Your task to perform on an android device: change keyboard looks Image 0: 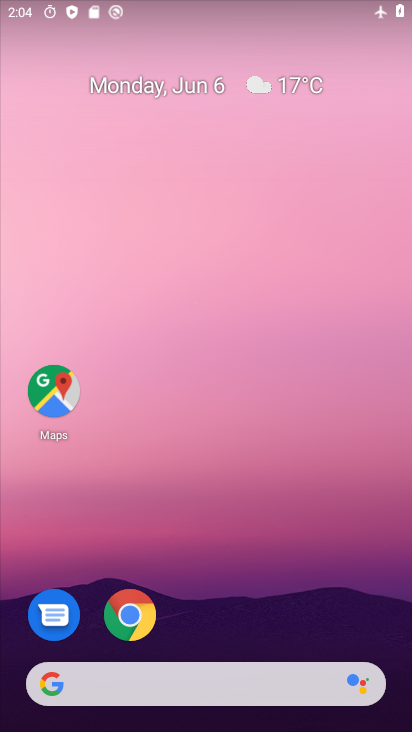
Step 0: drag from (196, 606) to (327, 101)
Your task to perform on an android device: change keyboard looks Image 1: 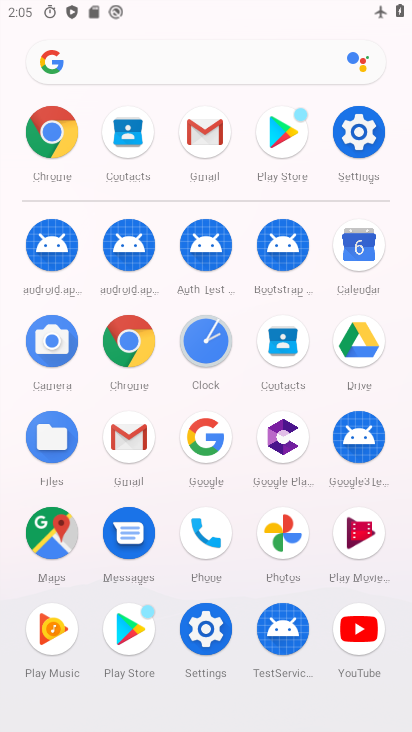
Step 1: click (213, 648)
Your task to perform on an android device: change keyboard looks Image 2: 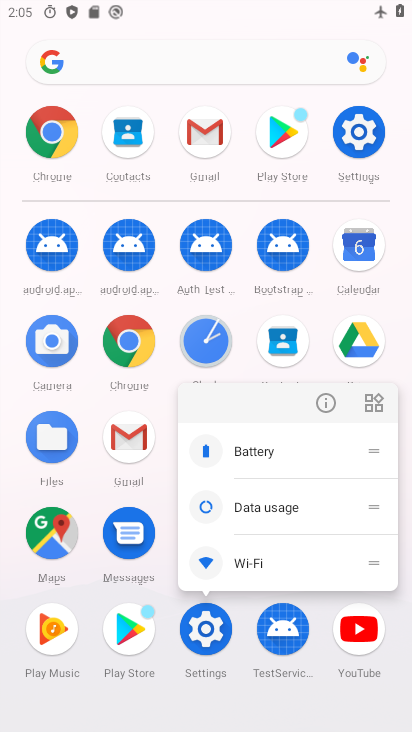
Step 2: click (330, 391)
Your task to perform on an android device: change keyboard looks Image 3: 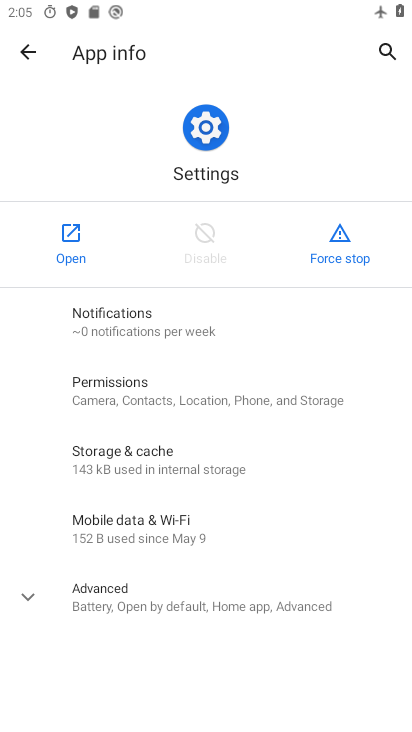
Step 3: click (70, 213)
Your task to perform on an android device: change keyboard looks Image 4: 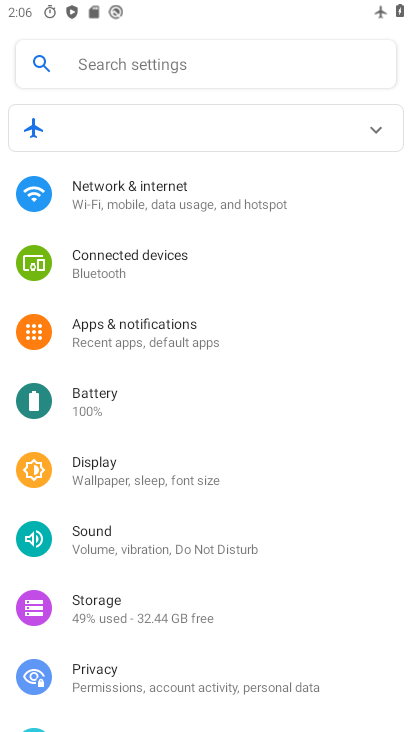
Step 4: click (37, 287)
Your task to perform on an android device: change keyboard looks Image 5: 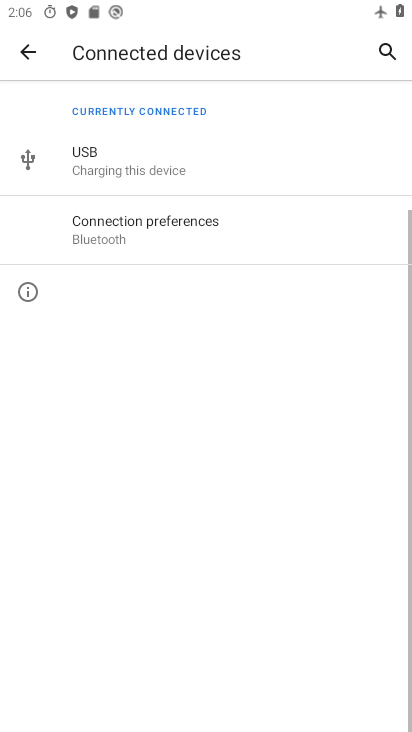
Step 5: drag from (156, 582) to (283, 33)
Your task to perform on an android device: change keyboard looks Image 6: 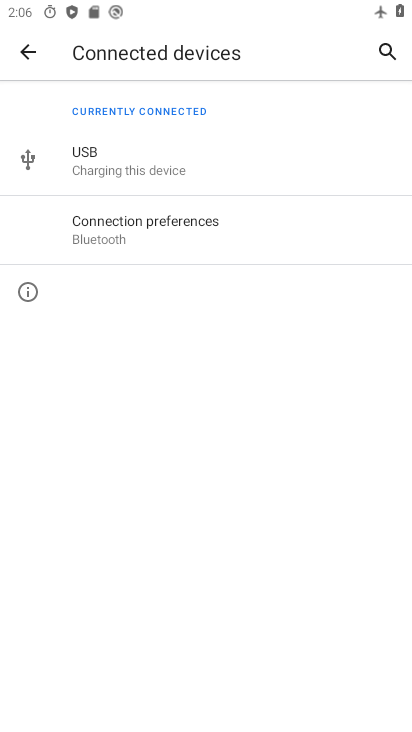
Step 6: click (28, 59)
Your task to perform on an android device: change keyboard looks Image 7: 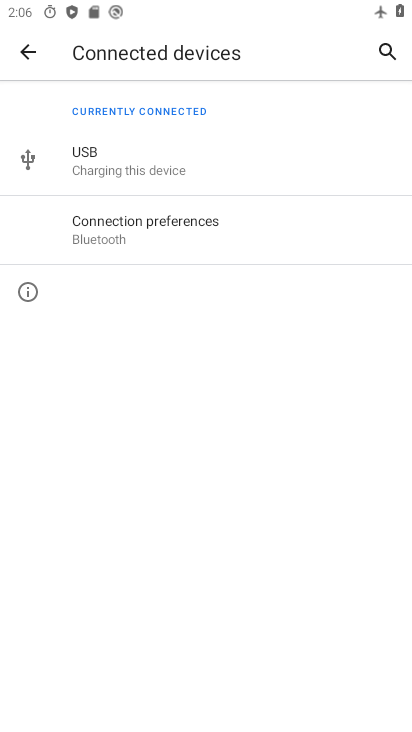
Step 7: drag from (131, 440) to (250, 16)
Your task to perform on an android device: change keyboard looks Image 8: 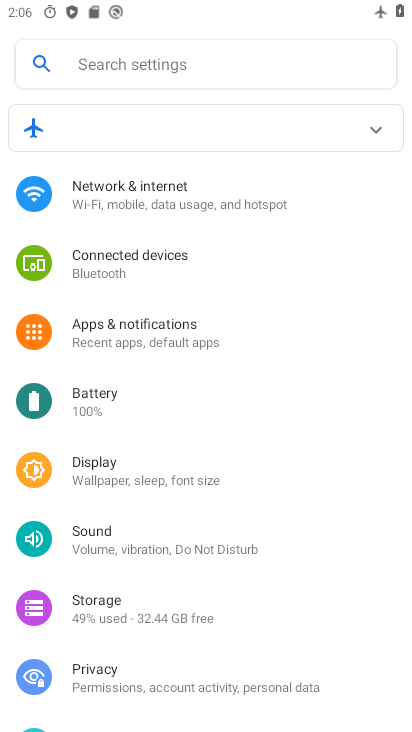
Step 8: drag from (144, 591) to (272, 5)
Your task to perform on an android device: change keyboard looks Image 9: 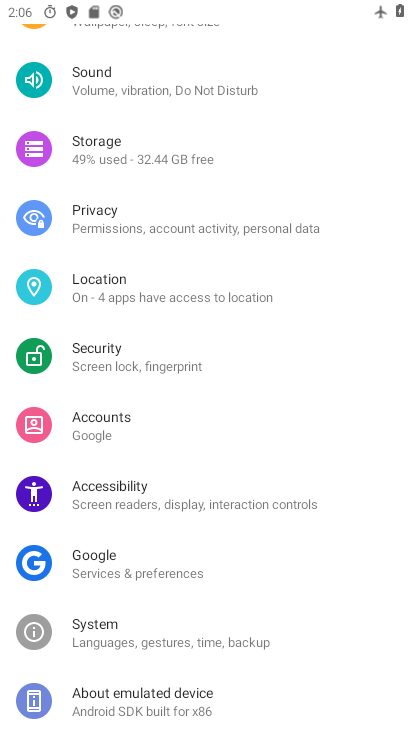
Step 9: click (118, 643)
Your task to perform on an android device: change keyboard looks Image 10: 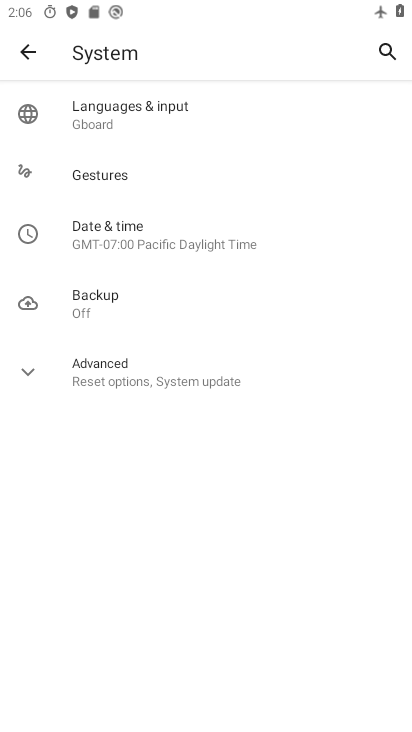
Step 10: click (184, 130)
Your task to perform on an android device: change keyboard looks Image 11: 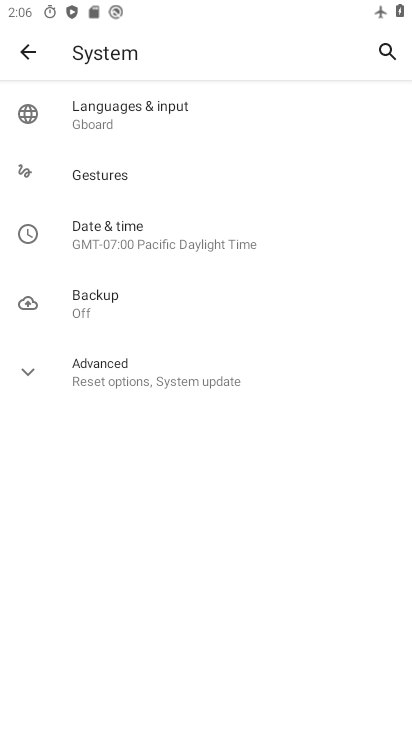
Step 11: click (184, 130)
Your task to perform on an android device: change keyboard looks Image 12: 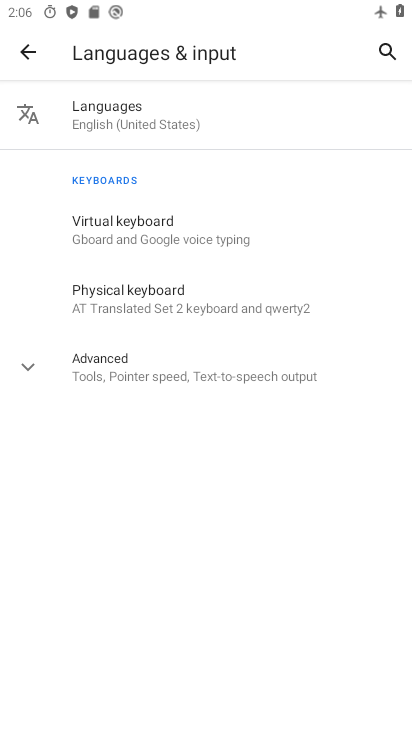
Step 12: drag from (174, 130) to (185, 417)
Your task to perform on an android device: change keyboard looks Image 13: 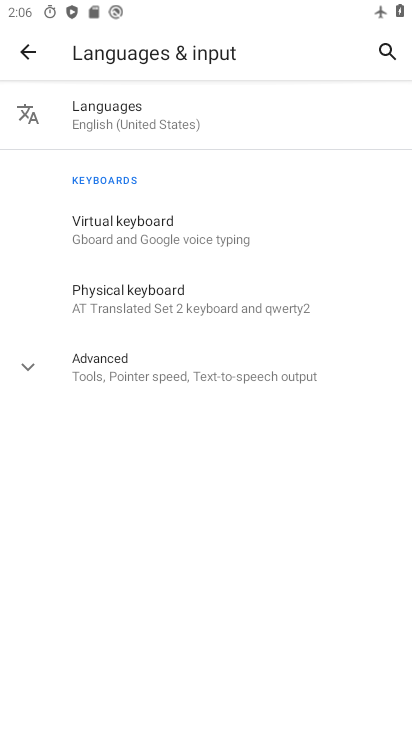
Step 13: click (197, 222)
Your task to perform on an android device: change keyboard looks Image 14: 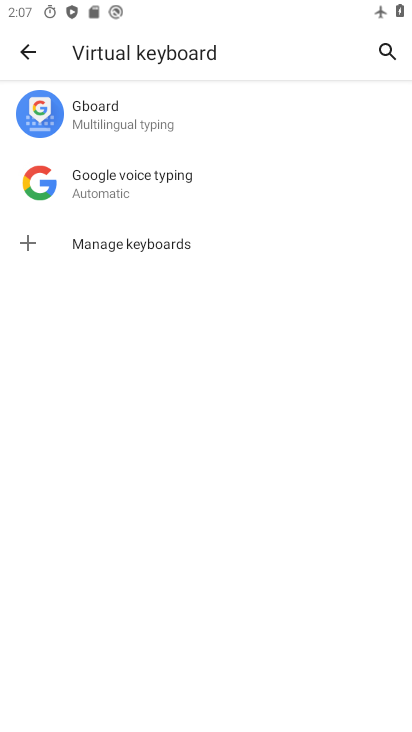
Step 14: click (160, 71)
Your task to perform on an android device: change keyboard looks Image 15: 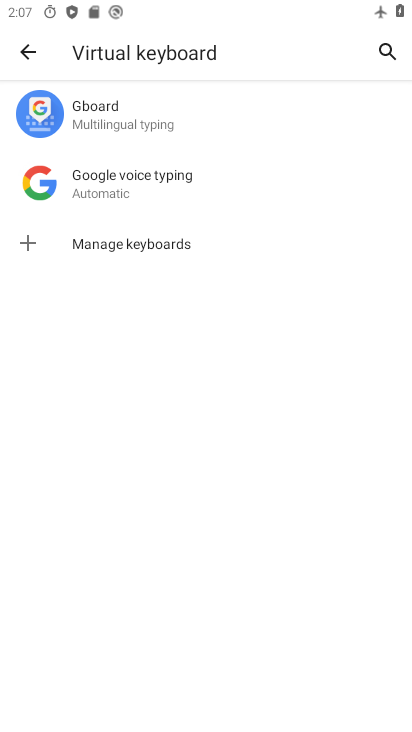
Step 15: click (131, 128)
Your task to perform on an android device: change keyboard looks Image 16: 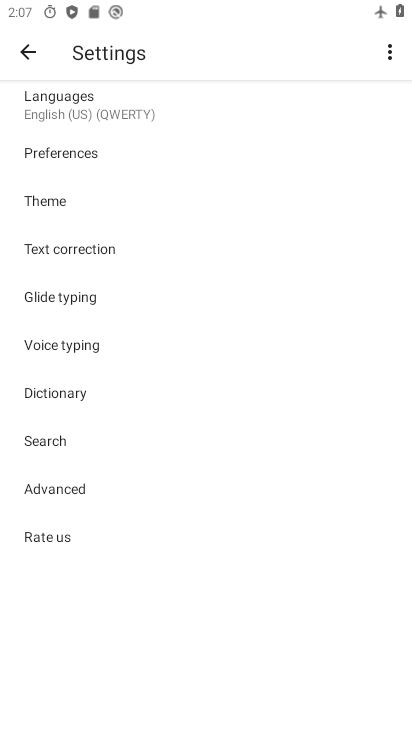
Step 16: click (79, 177)
Your task to perform on an android device: change keyboard looks Image 17: 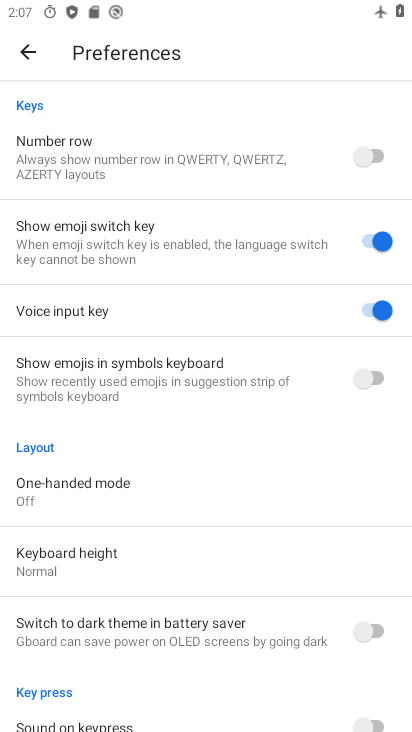
Step 17: click (31, 57)
Your task to perform on an android device: change keyboard looks Image 18: 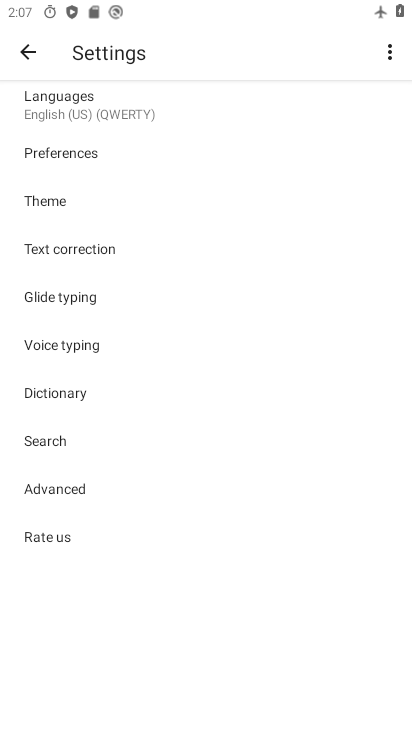
Step 18: click (103, 200)
Your task to perform on an android device: change keyboard looks Image 19: 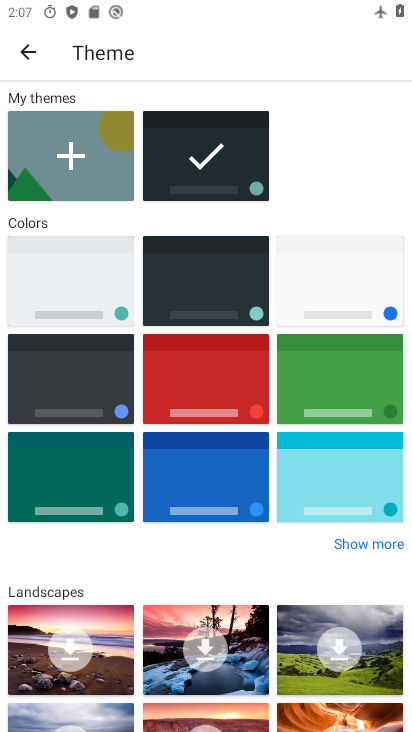
Step 19: click (217, 371)
Your task to perform on an android device: change keyboard looks Image 20: 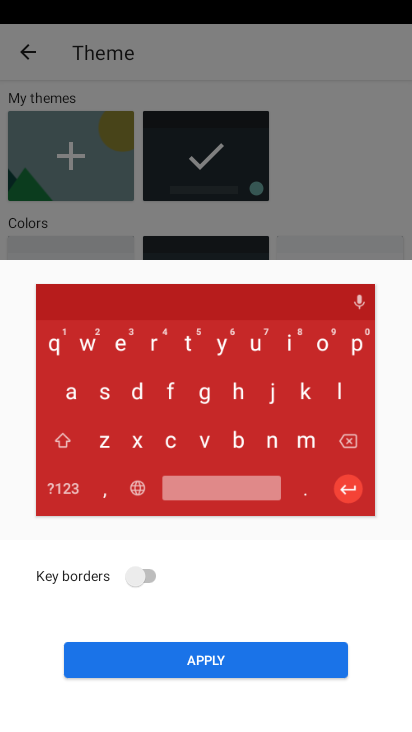
Step 20: click (188, 655)
Your task to perform on an android device: change keyboard looks Image 21: 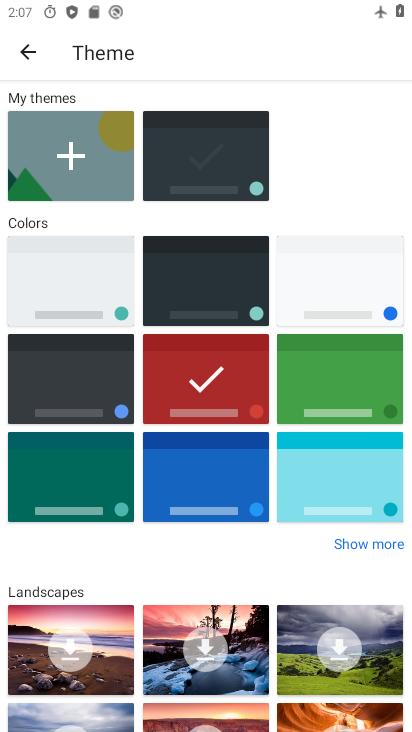
Step 21: task complete